Your task to perform on an android device: Open calendar and show me the fourth week of next month Image 0: 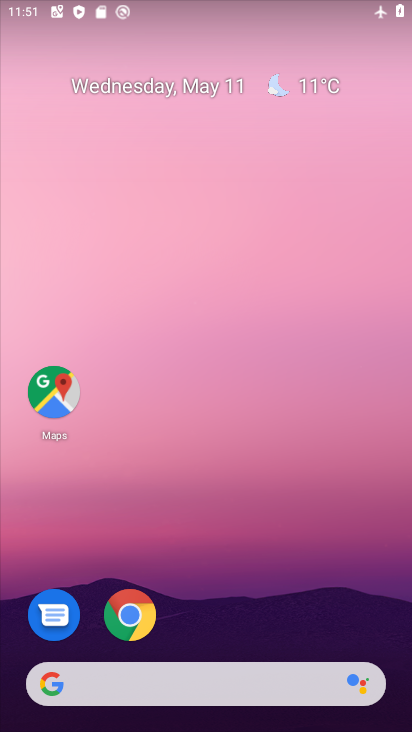
Step 0: drag from (258, 388) to (242, 113)
Your task to perform on an android device: Open calendar and show me the fourth week of next month Image 1: 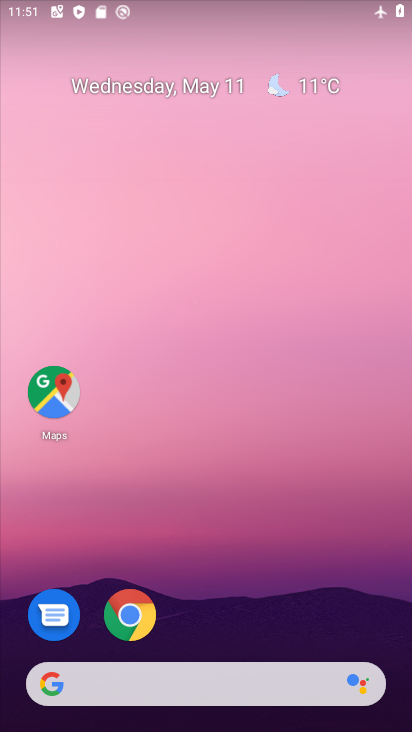
Step 1: drag from (260, 552) to (229, 88)
Your task to perform on an android device: Open calendar and show me the fourth week of next month Image 2: 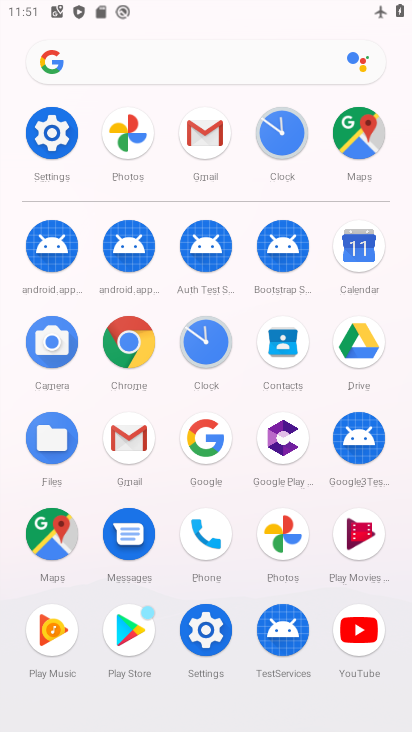
Step 2: click (357, 249)
Your task to perform on an android device: Open calendar and show me the fourth week of next month Image 3: 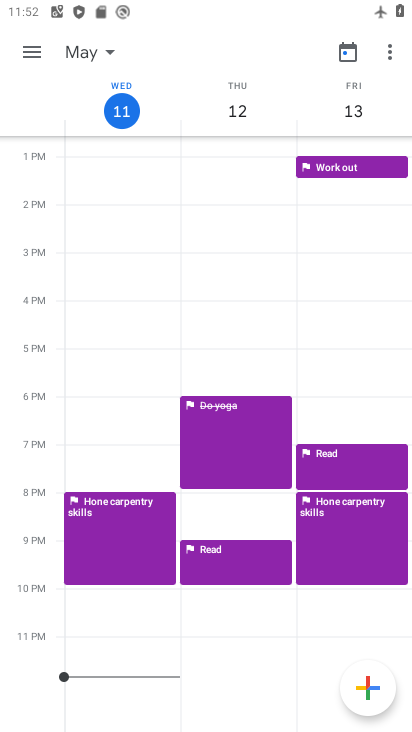
Step 3: click (94, 52)
Your task to perform on an android device: Open calendar and show me the fourth week of next month Image 4: 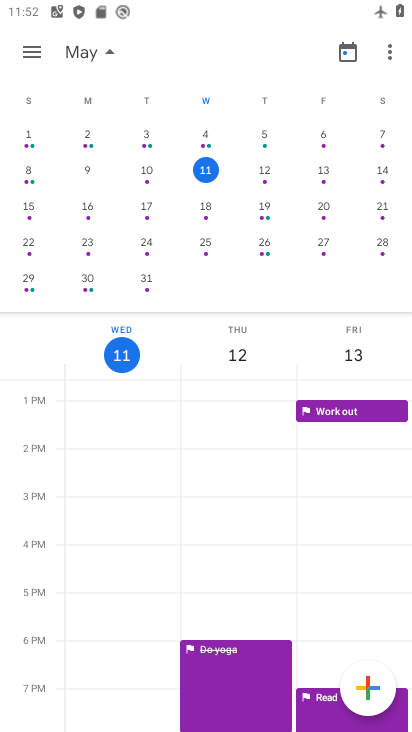
Step 4: drag from (369, 196) to (86, 190)
Your task to perform on an android device: Open calendar and show me the fourth week of next month Image 5: 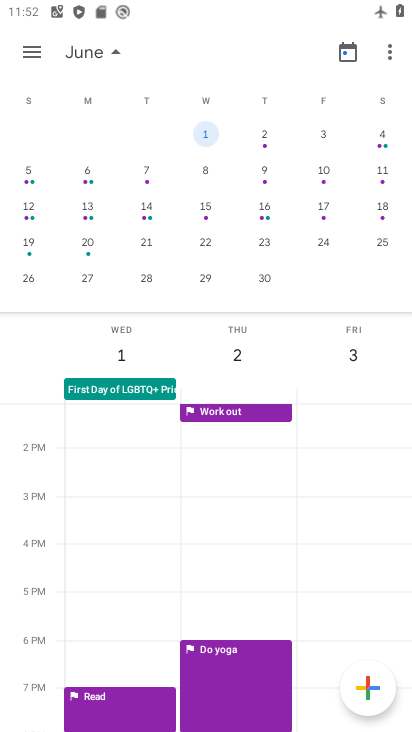
Step 5: click (26, 279)
Your task to perform on an android device: Open calendar and show me the fourth week of next month Image 6: 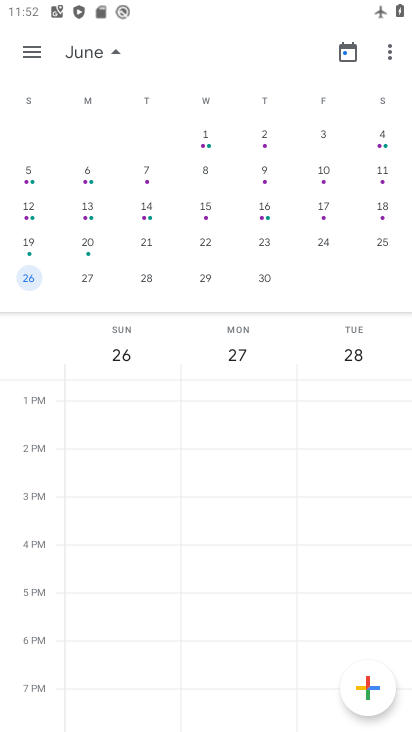
Step 6: task complete